Your task to perform on an android device: open a new tab in the chrome app Image 0: 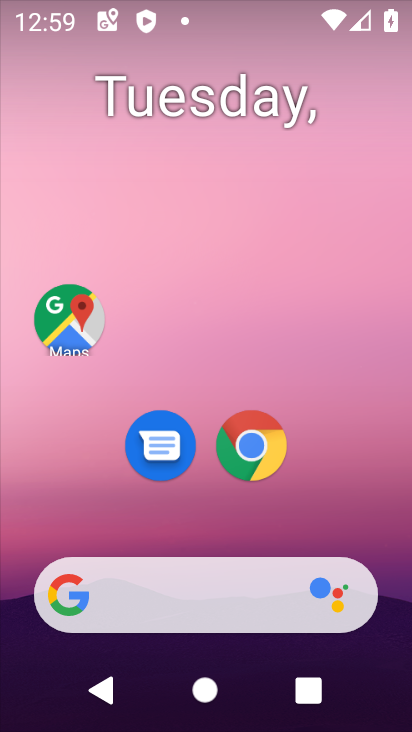
Step 0: drag from (337, 454) to (375, 125)
Your task to perform on an android device: open a new tab in the chrome app Image 1: 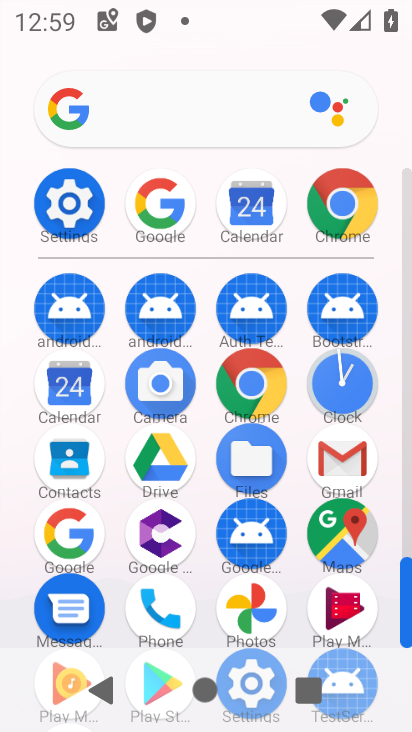
Step 1: click (322, 202)
Your task to perform on an android device: open a new tab in the chrome app Image 2: 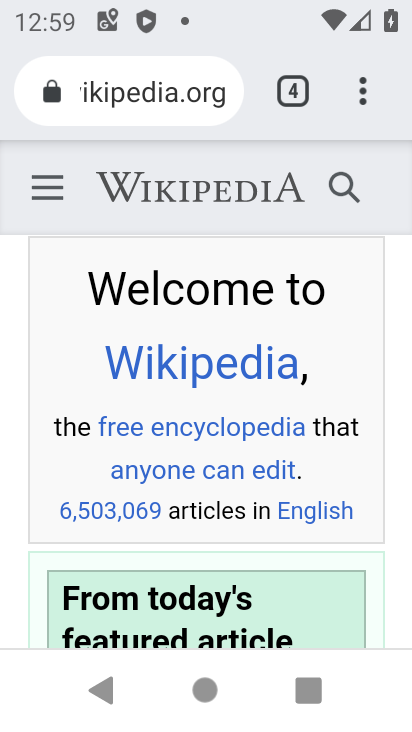
Step 2: task complete